Your task to perform on an android device: Show me popular games on the Play Store Image 0: 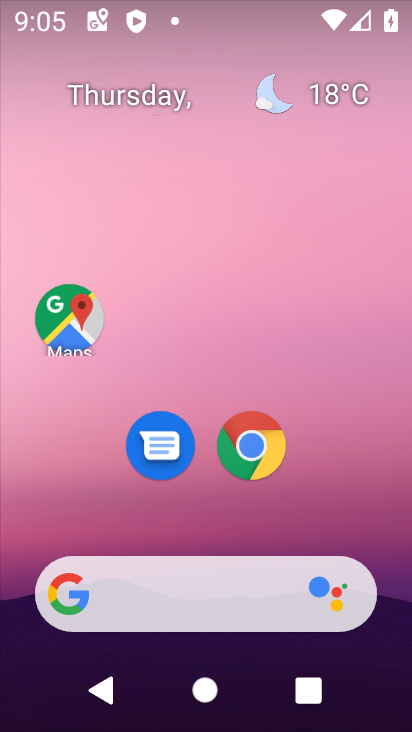
Step 0: drag from (381, 556) to (255, 138)
Your task to perform on an android device: Show me popular games on the Play Store Image 1: 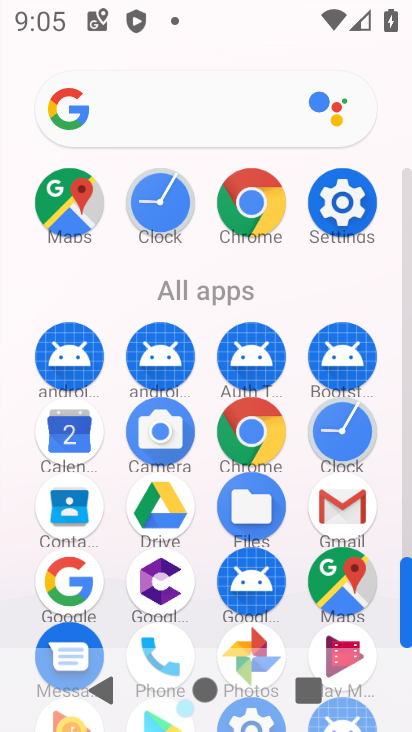
Step 1: drag from (398, 529) to (371, 289)
Your task to perform on an android device: Show me popular games on the Play Store Image 2: 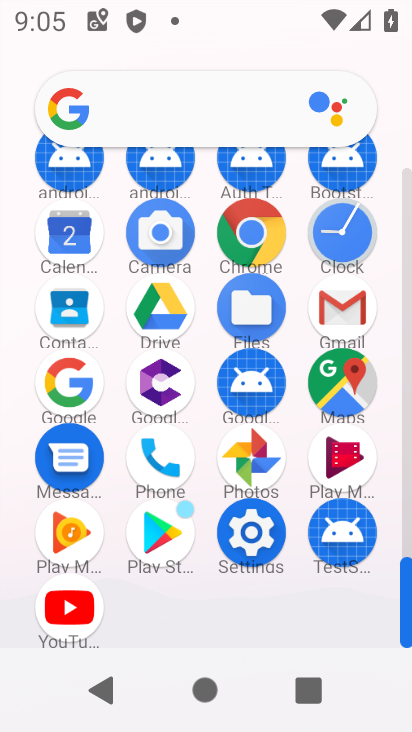
Step 2: click (185, 527)
Your task to perform on an android device: Show me popular games on the Play Store Image 3: 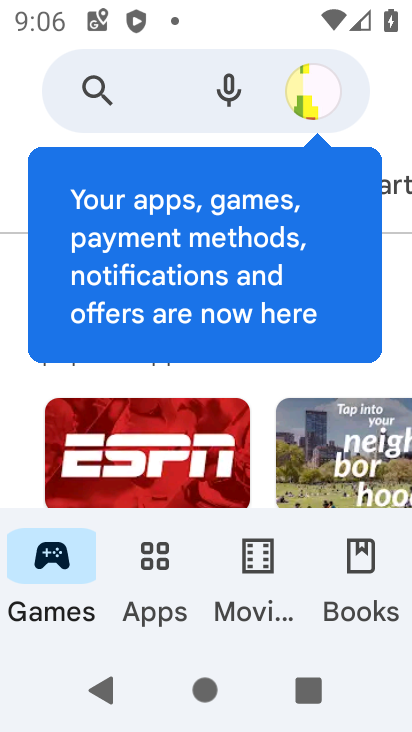
Step 3: drag from (260, 463) to (223, 181)
Your task to perform on an android device: Show me popular games on the Play Store Image 4: 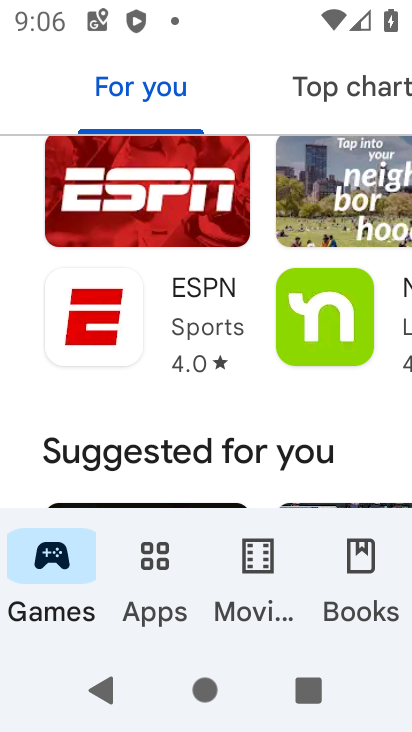
Step 4: drag from (259, 421) to (214, 131)
Your task to perform on an android device: Show me popular games on the Play Store Image 5: 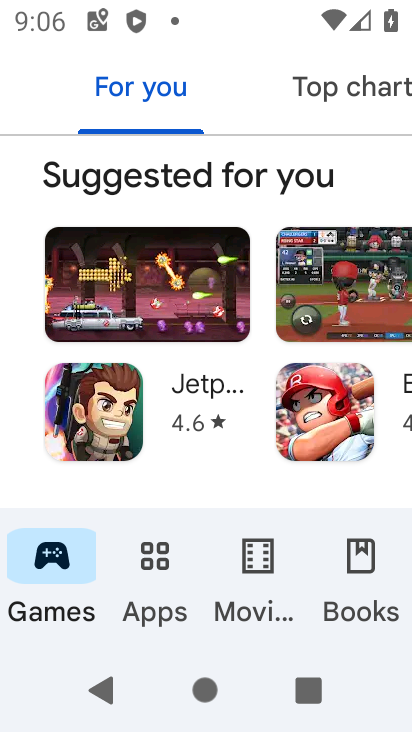
Step 5: drag from (244, 440) to (209, 112)
Your task to perform on an android device: Show me popular games on the Play Store Image 6: 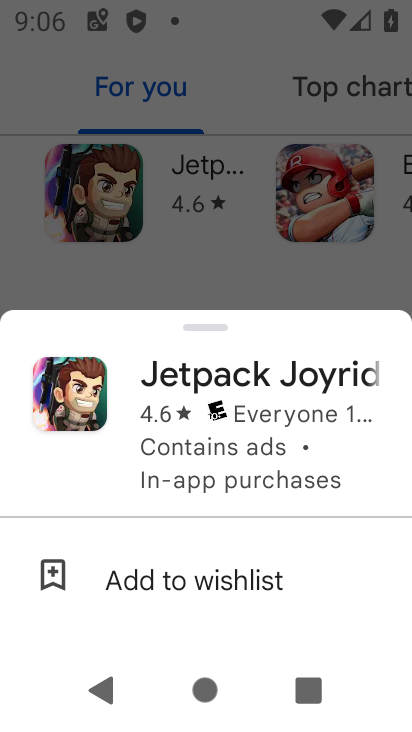
Step 6: drag from (245, 236) to (230, 92)
Your task to perform on an android device: Show me popular games on the Play Store Image 7: 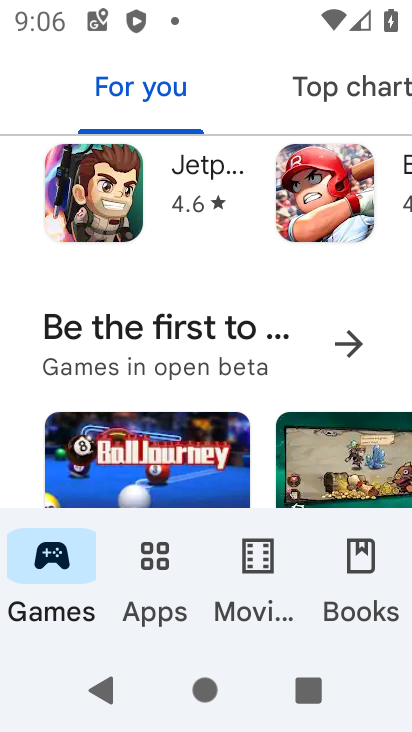
Step 7: drag from (260, 472) to (203, 69)
Your task to perform on an android device: Show me popular games on the Play Store Image 8: 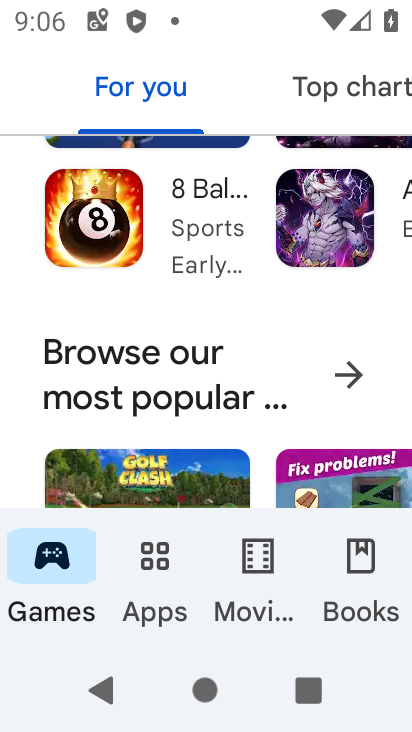
Step 8: click (247, 381)
Your task to perform on an android device: Show me popular games on the Play Store Image 9: 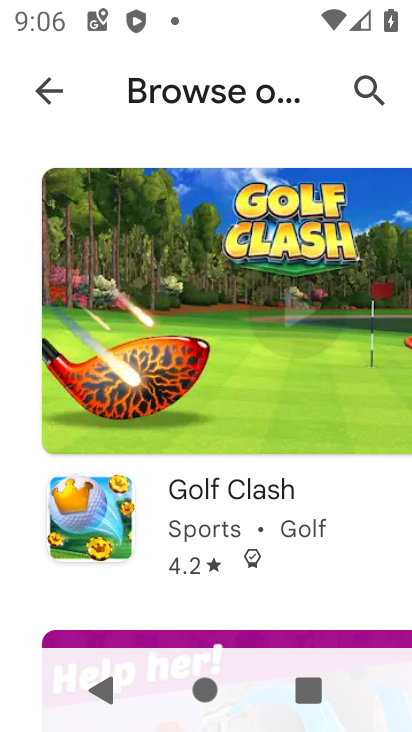
Step 9: task complete